Your task to perform on an android device: Search for pizza restaurants on Maps Image 0: 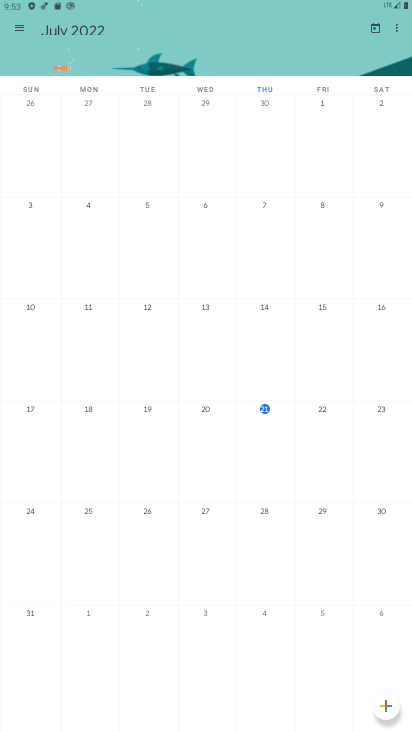
Step 0: press home button
Your task to perform on an android device: Search for pizza restaurants on Maps Image 1: 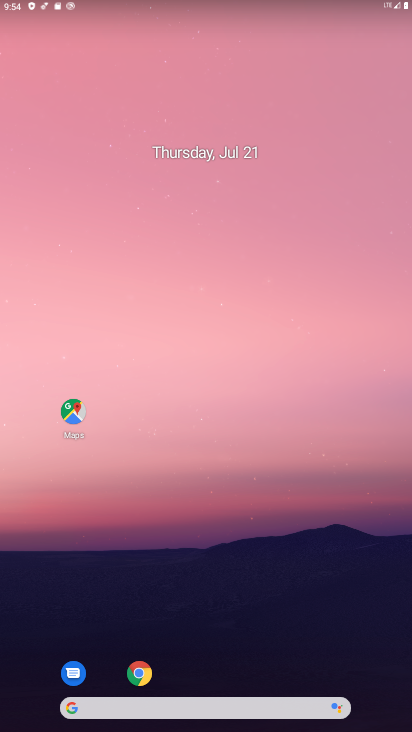
Step 1: drag from (222, 669) to (199, 207)
Your task to perform on an android device: Search for pizza restaurants on Maps Image 2: 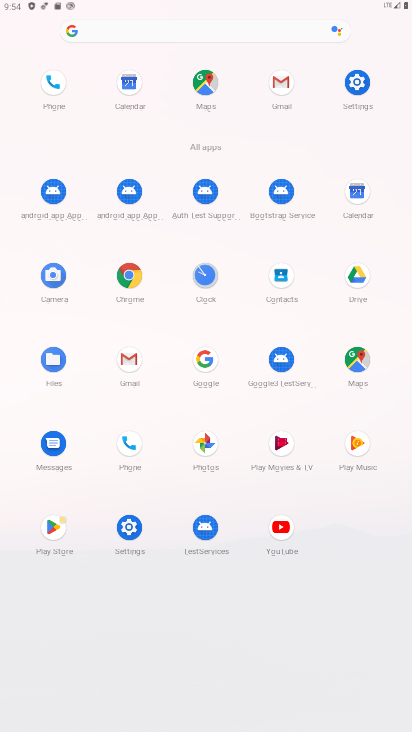
Step 2: click (354, 359)
Your task to perform on an android device: Search for pizza restaurants on Maps Image 3: 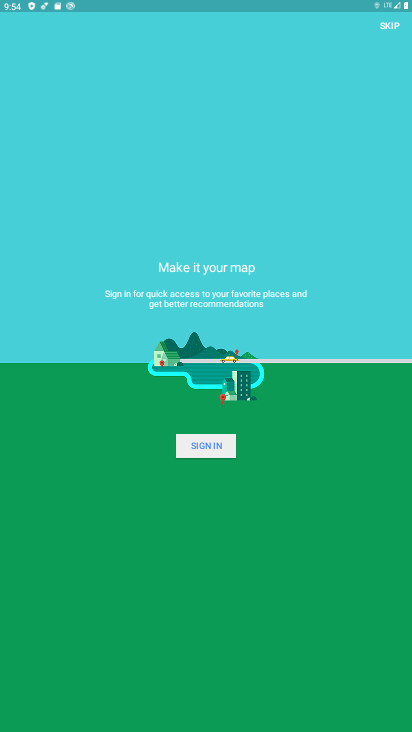
Step 3: task complete